Your task to perform on an android device: open chrome privacy settings Image 0: 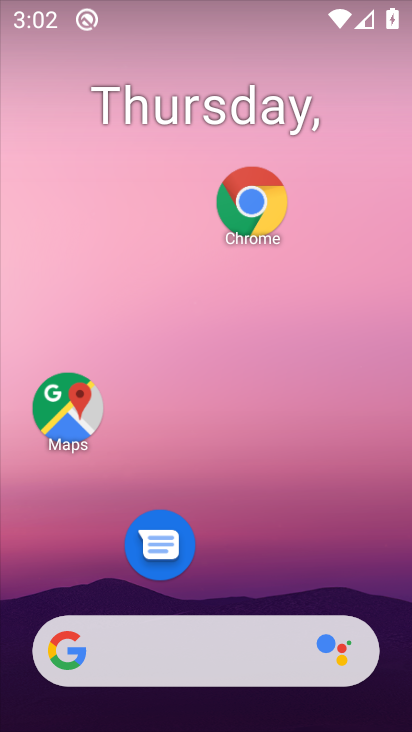
Step 0: click (260, 204)
Your task to perform on an android device: open chrome privacy settings Image 1: 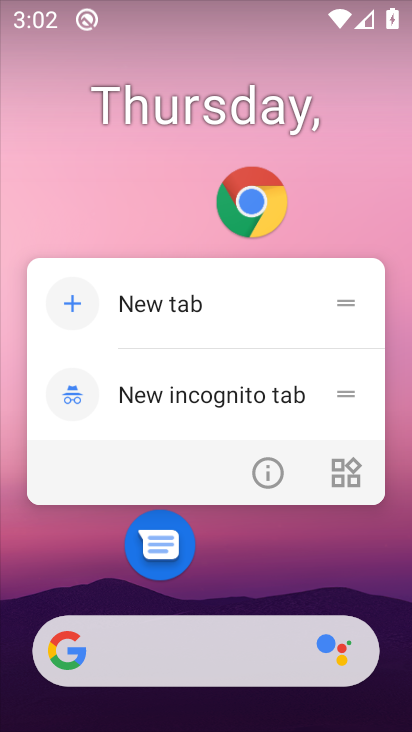
Step 1: click (259, 206)
Your task to perform on an android device: open chrome privacy settings Image 2: 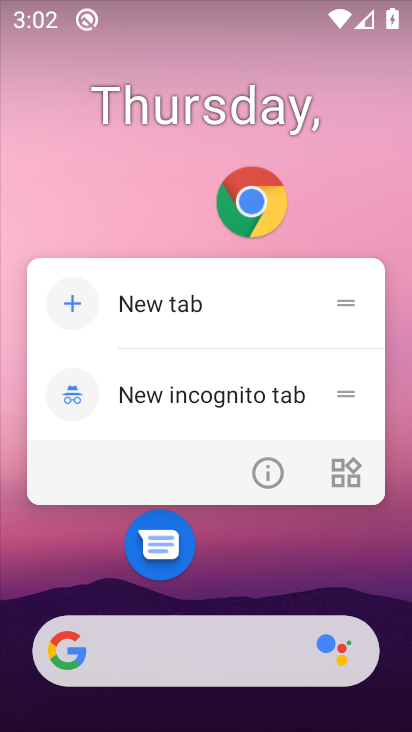
Step 2: click (251, 210)
Your task to perform on an android device: open chrome privacy settings Image 3: 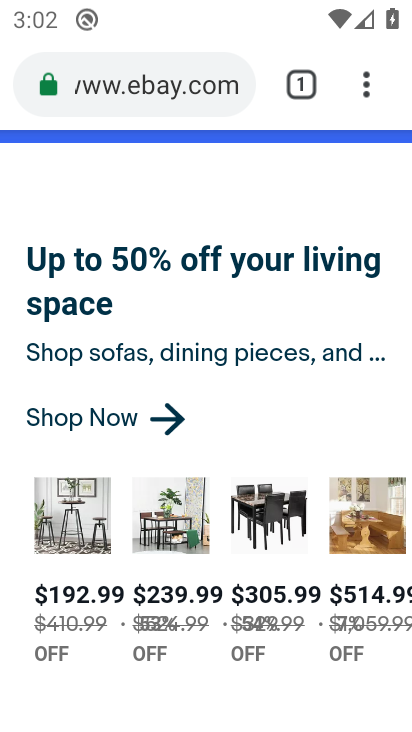
Step 3: click (362, 85)
Your task to perform on an android device: open chrome privacy settings Image 4: 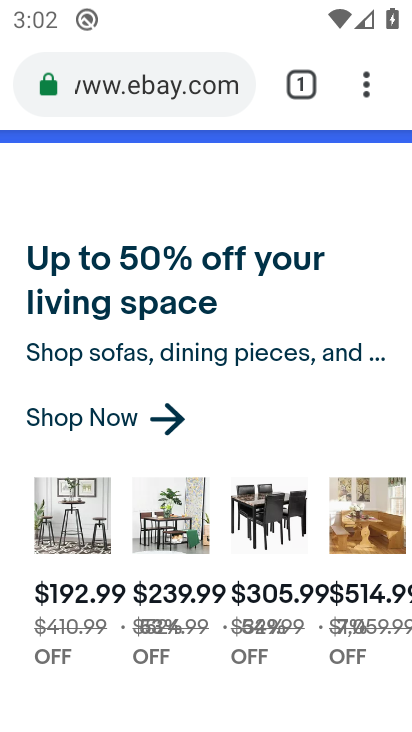
Step 4: click (364, 80)
Your task to perform on an android device: open chrome privacy settings Image 5: 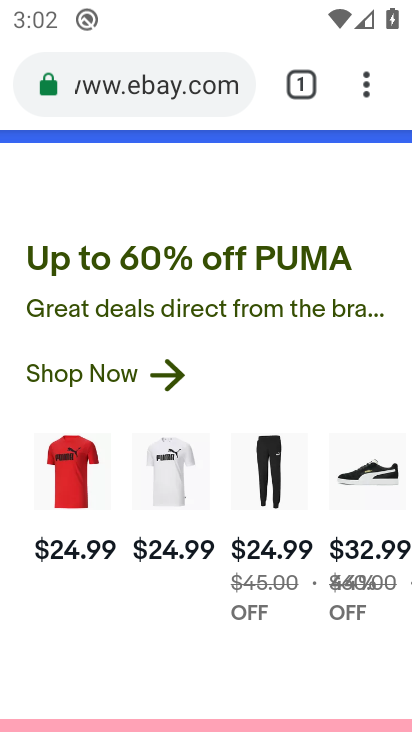
Step 5: click (373, 84)
Your task to perform on an android device: open chrome privacy settings Image 6: 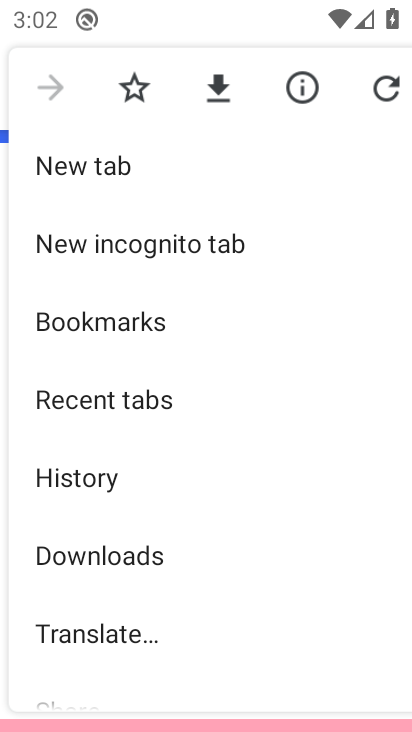
Step 6: drag from (93, 666) to (144, 271)
Your task to perform on an android device: open chrome privacy settings Image 7: 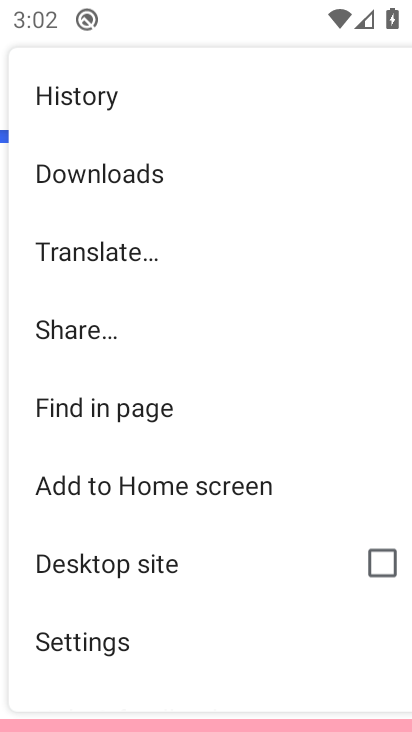
Step 7: click (94, 646)
Your task to perform on an android device: open chrome privacy settings Image 8: 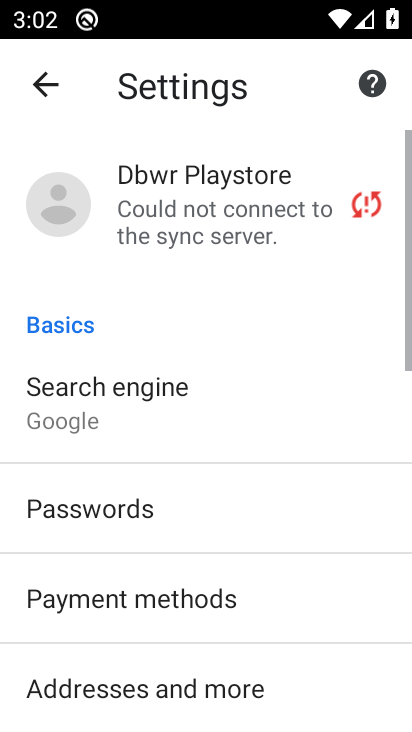
Step 8: drag from (111, 689) to (149, 232)
Your task to perform on an android device: open chrome privacy settings Image 9: 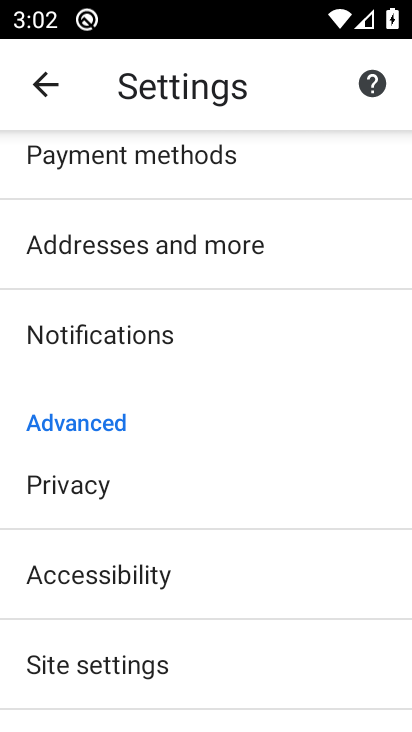
Step 9: click (86, 489)
Your task to perform on an android device: open chrome privacy settings Image 10: 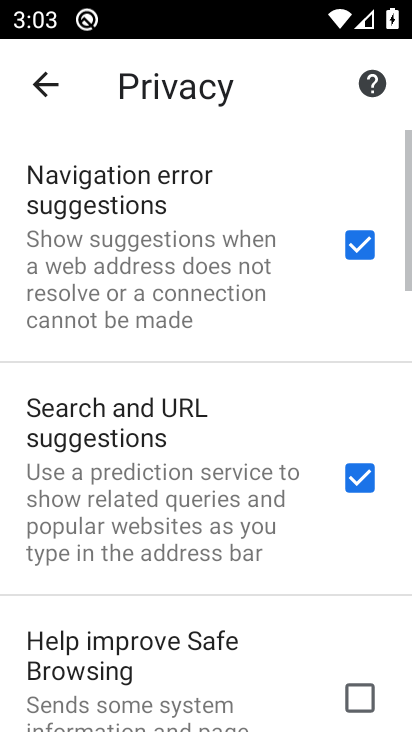
Step 10: task complete